Your task to perform on an android device: turn on javascript in the chrome app Image 0: 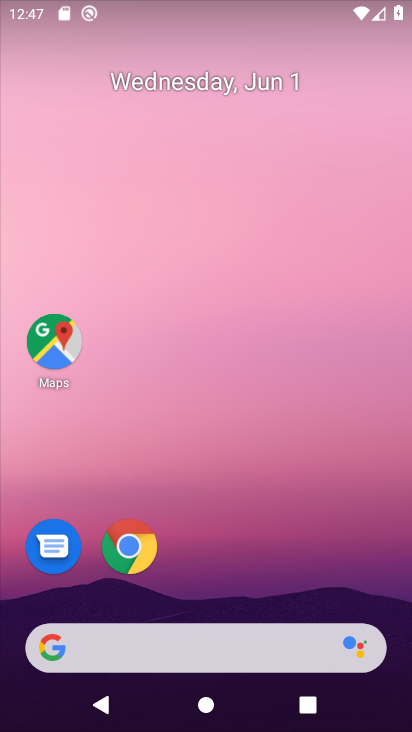
Step 0: click (144, 540)
Your task to perform on an android device: turn on javascript in the chrome app Image 1: 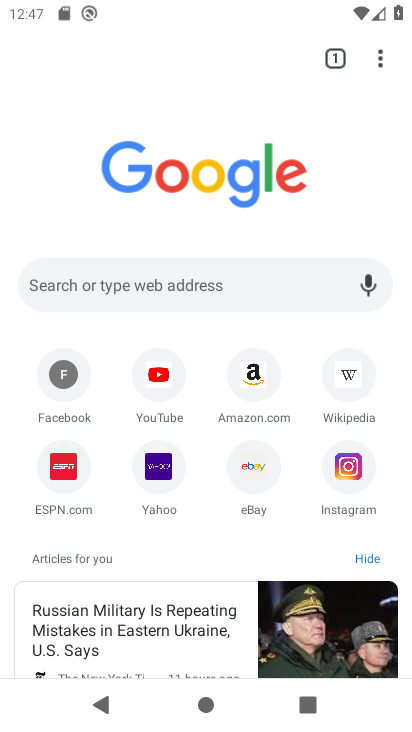
Step 1: drag from (374, 54) to (173, 497)
Your task to perform on an android device: turn on javascript in the chrome app Image 2: 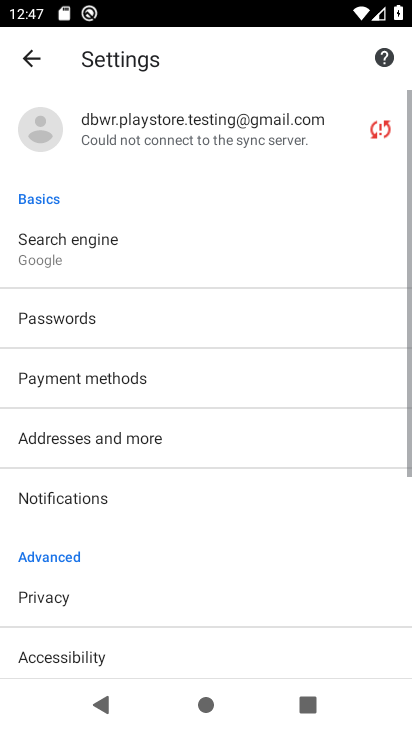
Step 2: drag from (146, 542) to (214, 123)
Your task to perform on an android device: turn on javascript in the chrome app Image 3: 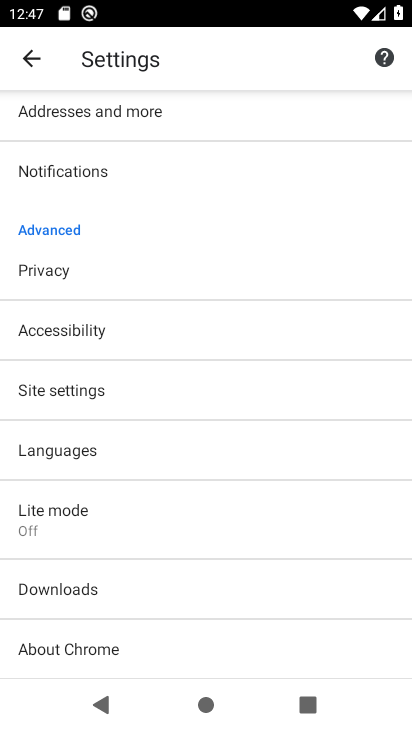
Step 3: click (74, 394)
Your task to perform on an android device: turn on javascript in the chrome app Image 4: 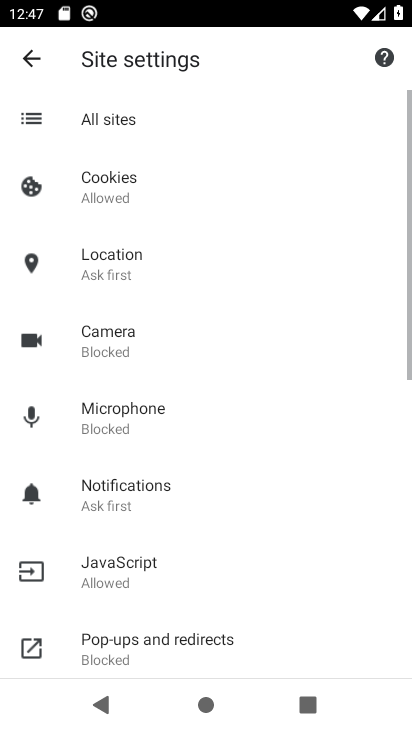
Step 4: click (113, 565)
Your task to perform on an android device: turn on javascript in the chrome app Image 5: 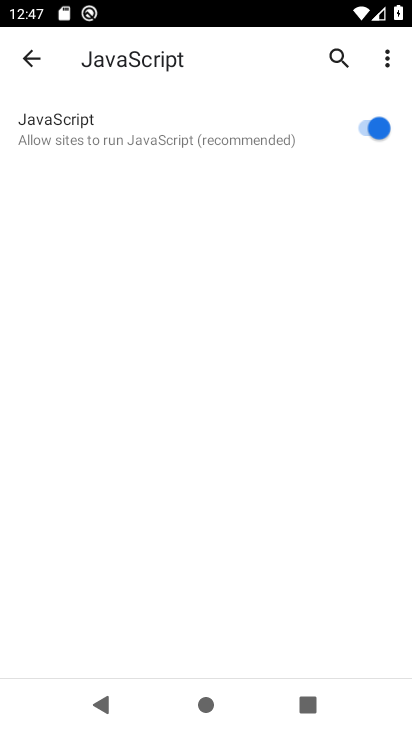
Step 5: task complete